Your task to perform on an android device: turn off improve location accuracy Image 0: 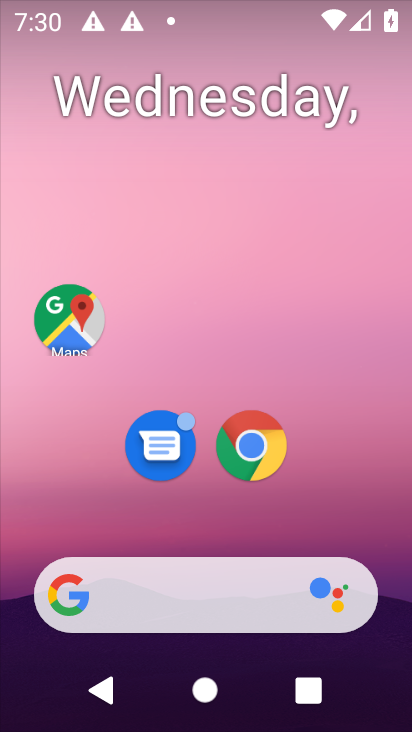
Step 0: drag from (159, 561) to (208, 105)
Your task to perform on an android device: turn off improve location accuracy Image 1: 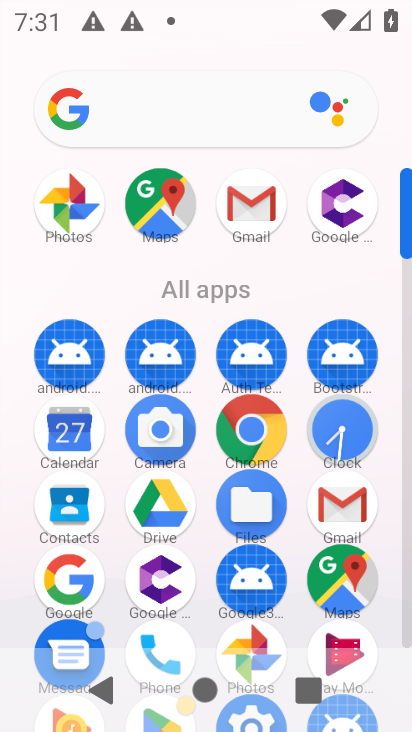
Step 1: drag from (242, 644) to (297, 222)
Your task to perform on an android device: turn off improve location accuracy Image 2: 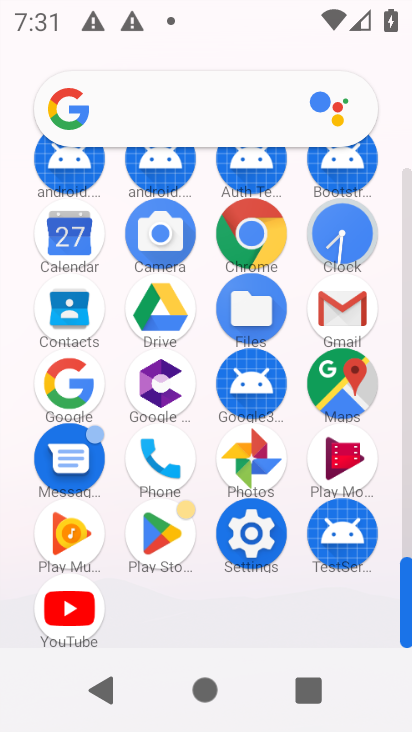
Step 2: click (247, 545)
Your task to perform on an android device: turn off improve location accuracy Image 3: 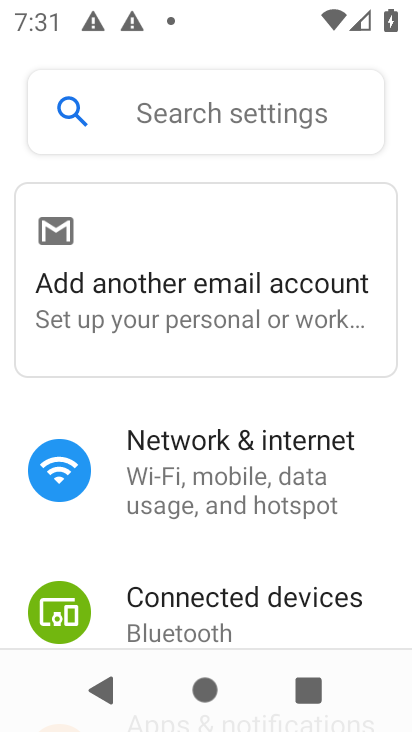
Step 3: drag from (194, 623) to (213, 169)
Your task to perform on an android device: turn off improve location accuracy Image 4: 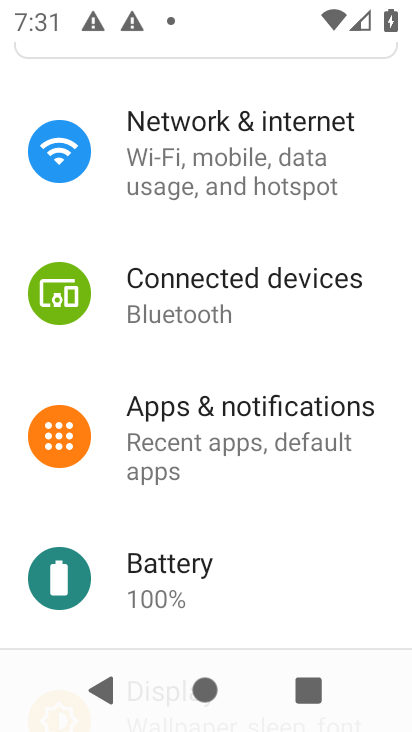
Step 4: drag from (212, 609) to (234, 178)
Your task to perform on an android device: turn off improve location accuracy Image 5: 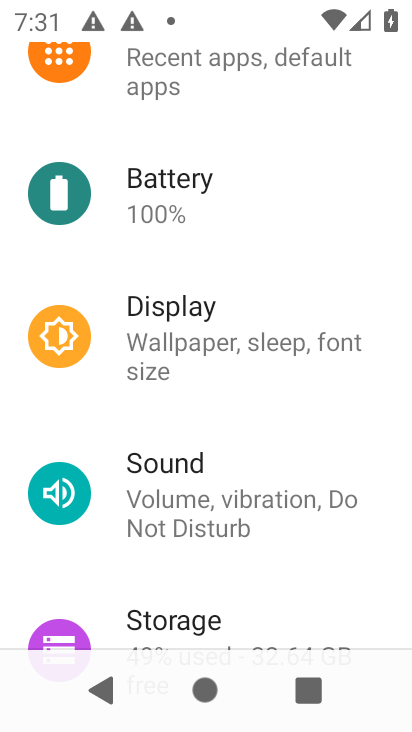
Step 5: drag from (206, 591) to (200, 162)
Your task to perform on an android device: turn off improve location accuracy Image 6: 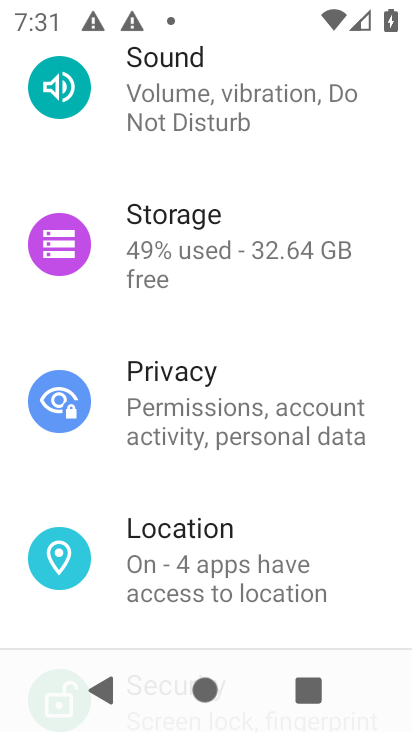
Step 6: click (173, 552)
Your task to perform on an android device: turn off improve location accuracy Image 7: 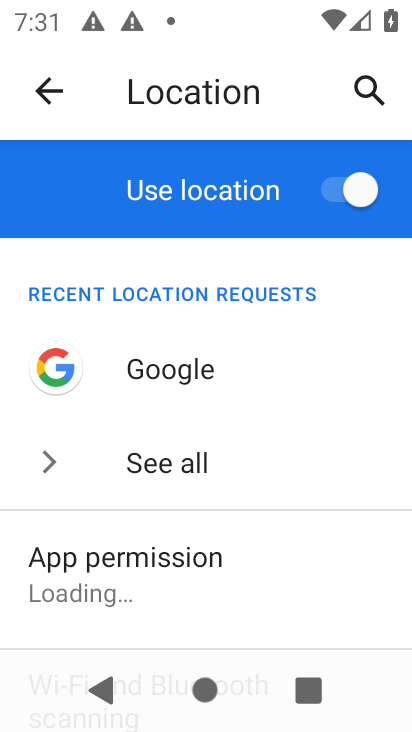
Step 7: drag from (169, 618) to (186, 174)
Your task to perform on an android device: turn off improve location accuracy Image 8: 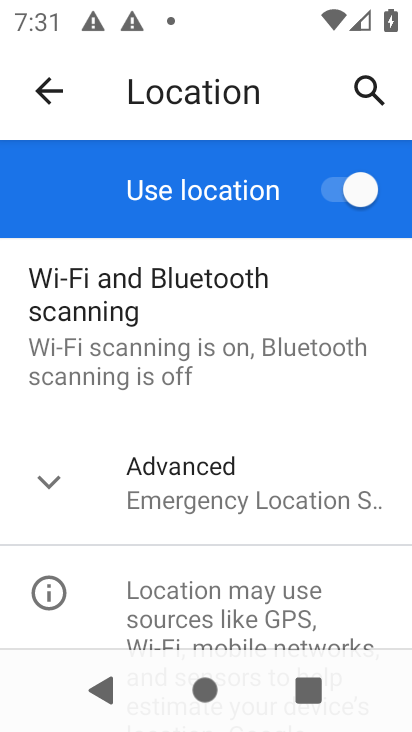
Step 8: click (174, 484)
Your task to perform on an android device: turn off improve location accuracy Image 9: 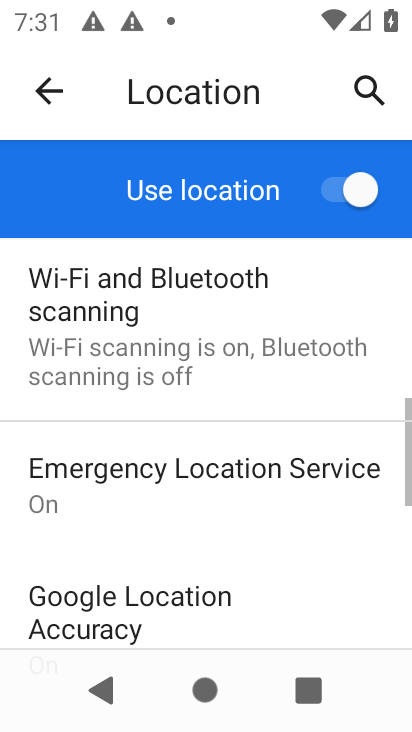
Step 9: drag from (210, 605) to (213, 265)
Your task to perform on an android device: turn off improve location accuracy Image 10: 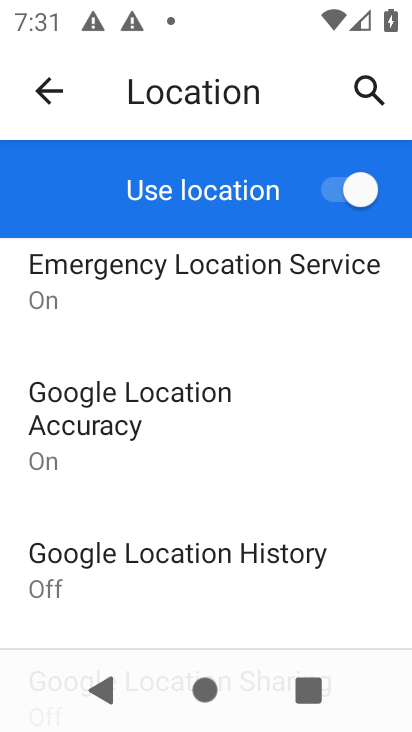
Step 10: click (163, 446)
Your task to perform on an android device: turn off improve location accuracy Image 11: 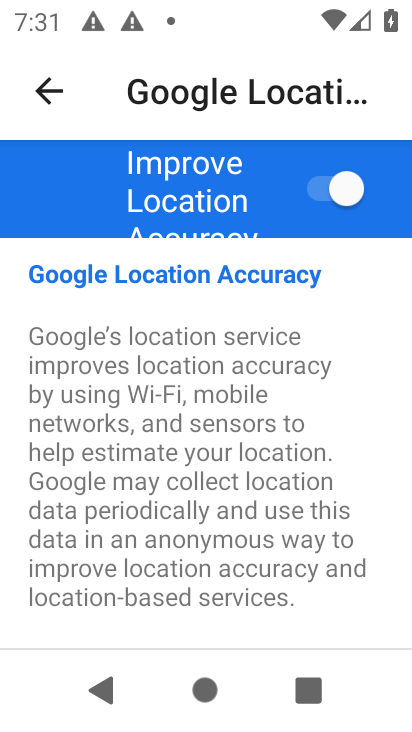
Step 11: click (325, 195)
Your task to perform on an android device: turn off improve location accuracy Image 12: 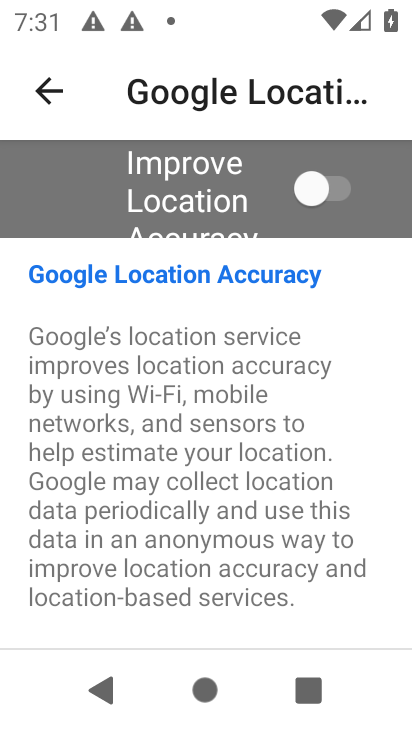
Step 12: task complete